Your task to perform on an android device: create a new album in the google photos Image 0: 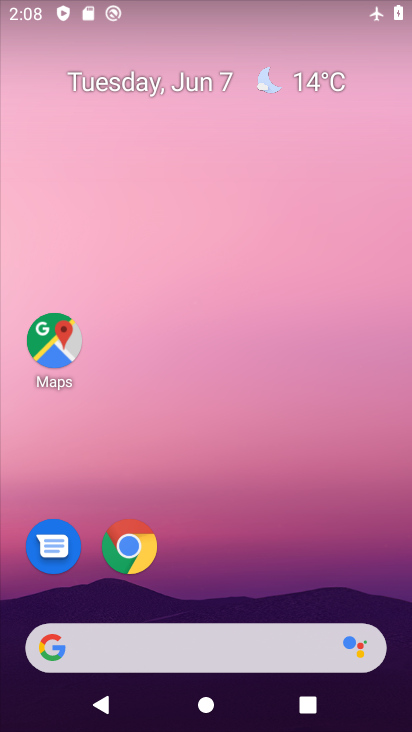
Step 0: drag from (211, 614) to (225, 38)
Your task to perform on an android device: create a new album in the google photos Image 1: 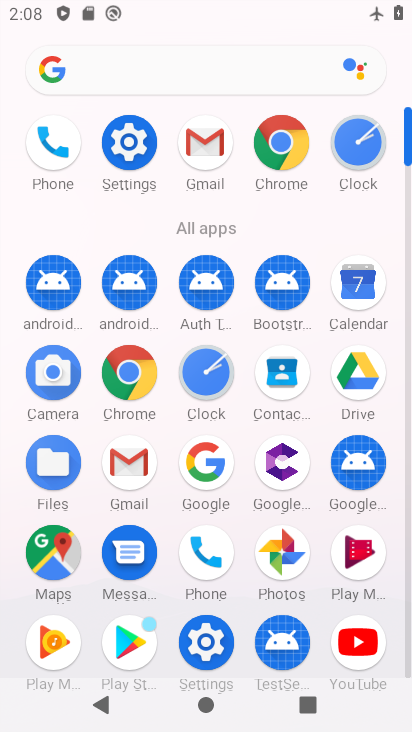
Step 1: click (291, 552)
Your task to perform on an android device: create a new album in the google photos Image 2: 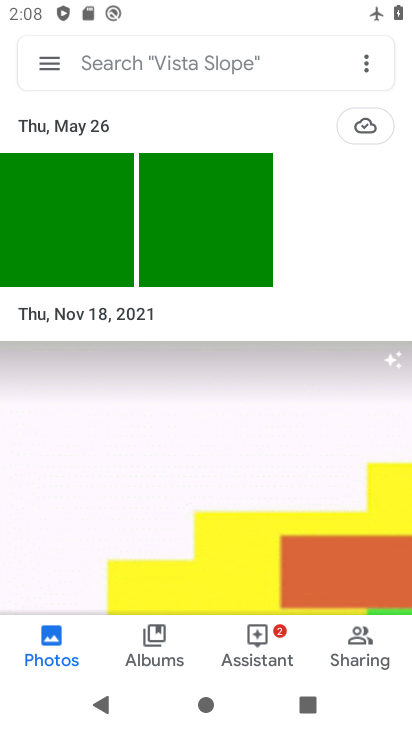
Step 2: click (166, 208)
Your task to perform on an android device: create a new album in the google photos Image 3: 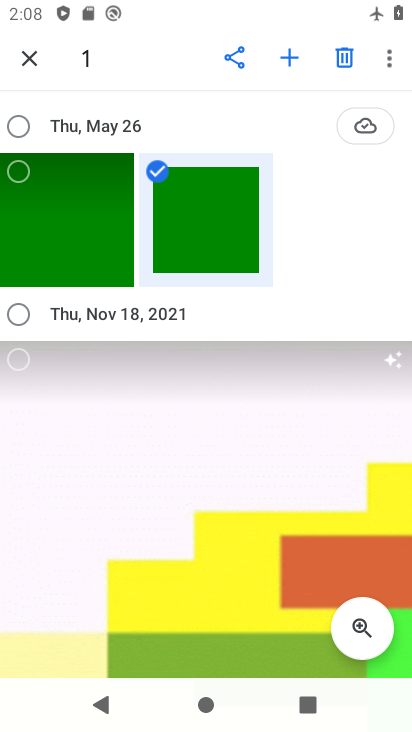
Step 3: click (19, 174)
Your task to perform on an android device: create a new album in the google photos Image 4: 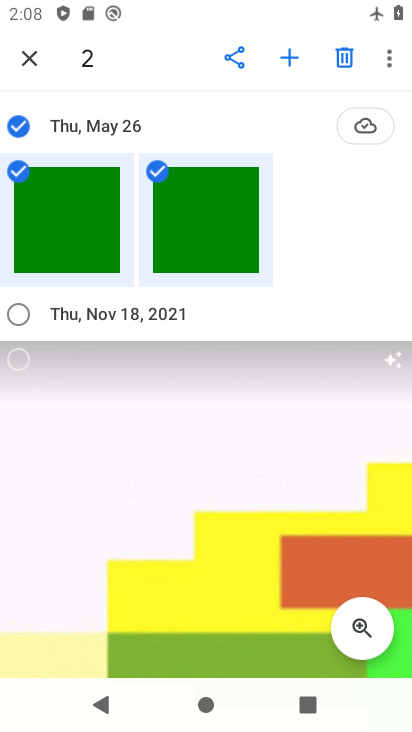
Step 4: click (284, 61)
Your task to perform on an android device: create a new album in the google photos Image 5: 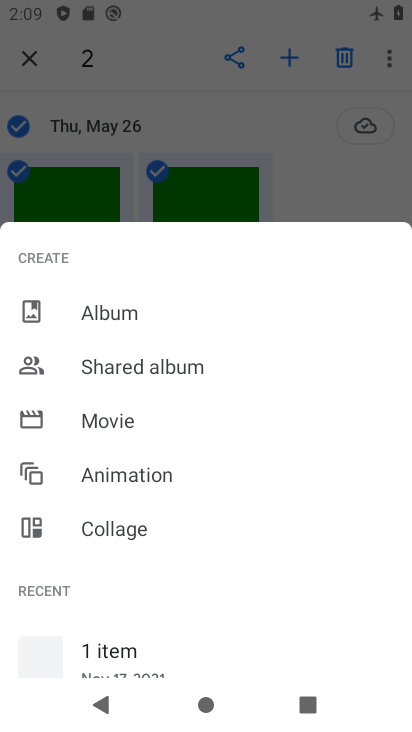
Step 5: click (198, 306)
Your task to perform on an android device: create a new album in the google photos Image 6: 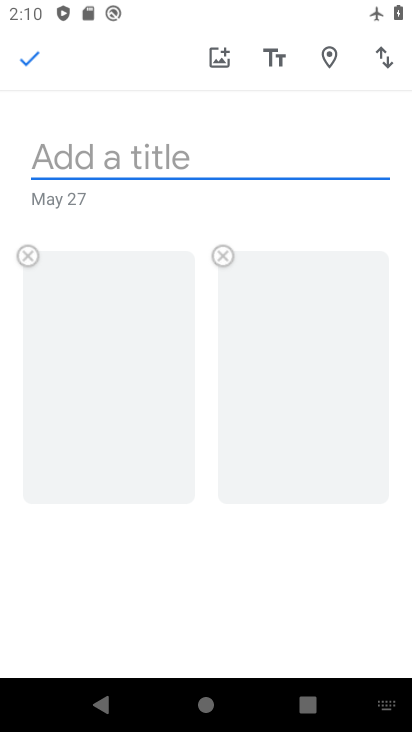
Step 6: type "98765"
Your task to perform on an android device: create a new album in the google photos Image 7: 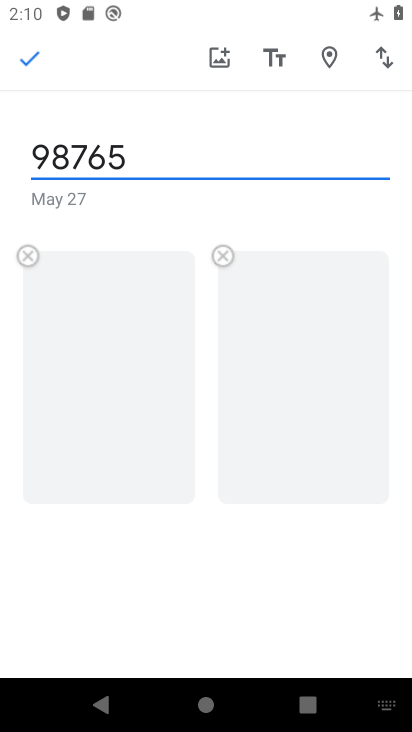
Step 7: click (22, 56)
Your task to perform on an android device: create a new album in the google photos Image 8: 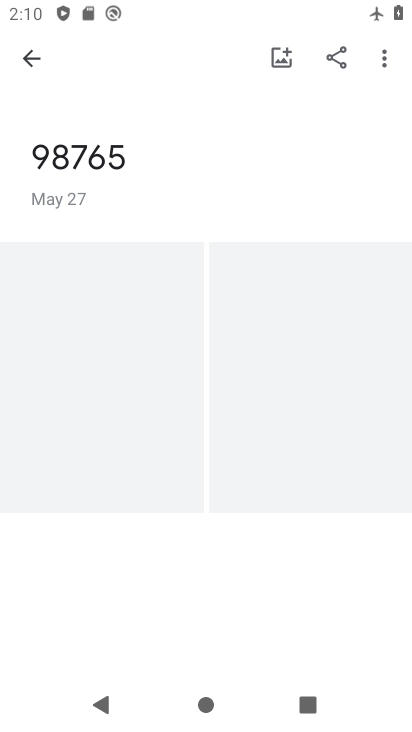
Step 8: task complete